Your task to perform on an android device: delete a single message in the gmail app Image 0: 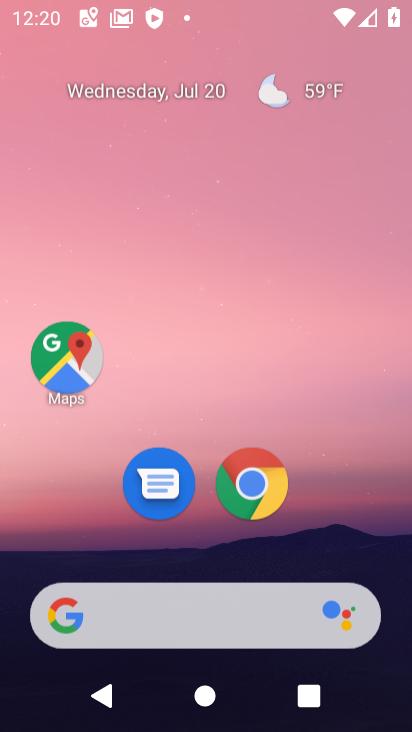
Step 0: drag from (187, 588) to (266, 24)
Your task to perform on an android device: delete a single message in the gmail app Image 1: 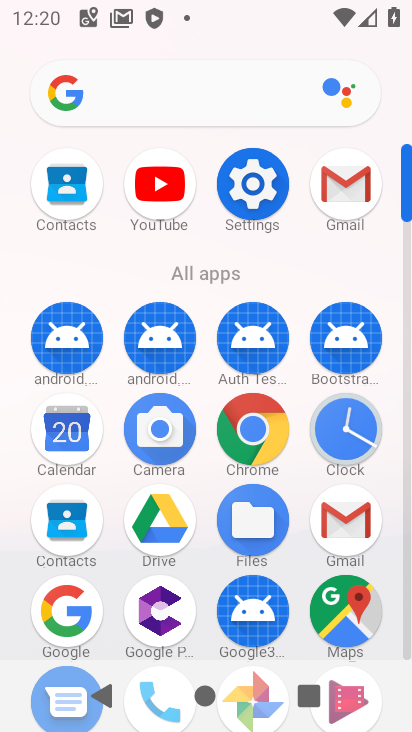
Step 1: click (348, 208)
Your task to perform on an android device: delete a single message in the gmail app Image 2: 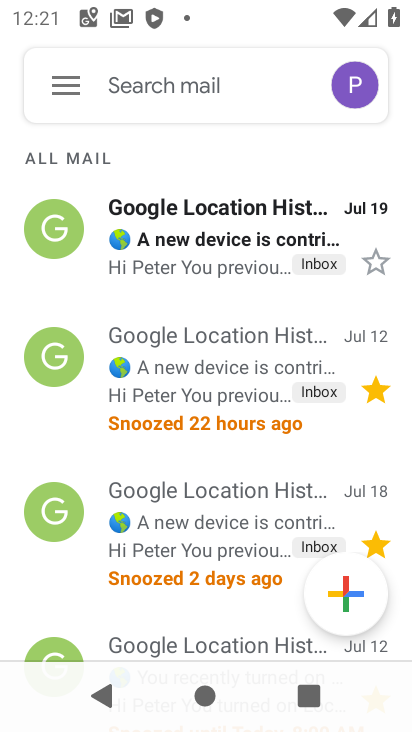
Step 2: click (162, 221)
Your task to perform on an android device: delete a single message in the gmail app Image 3: 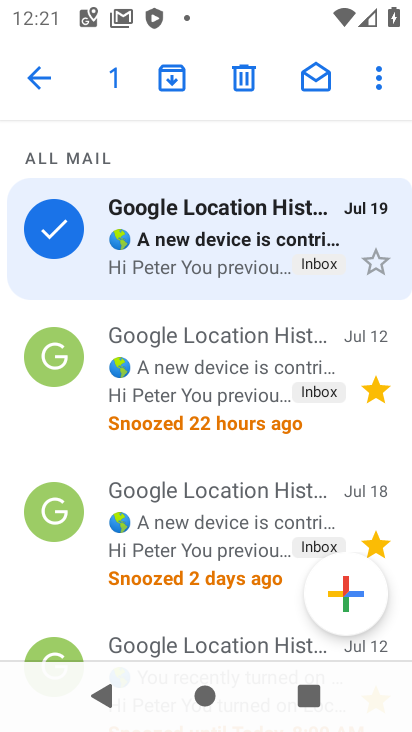
Step 3: click (249, 83)
Your task to perform on an android device: delete a single message in the gmail app Image 4: 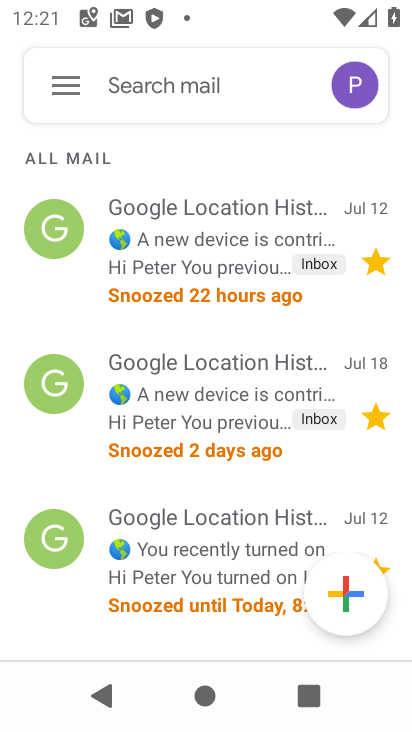
Step 4: task complete